Your task to perform on an android device: change alarm snooze length Image 0: 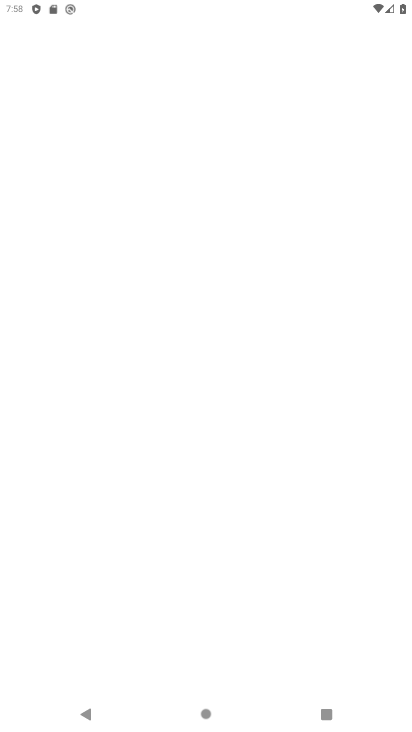
Step 0: click (140, 505)
Your task to perform on an android device: change alarm snooze length Image 1: 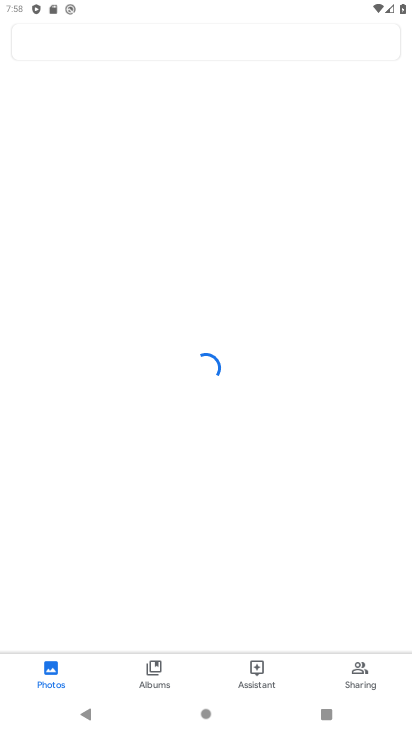
Step 1: press home button
Your task to perform on an android device: change alarm snooze length Image 2: 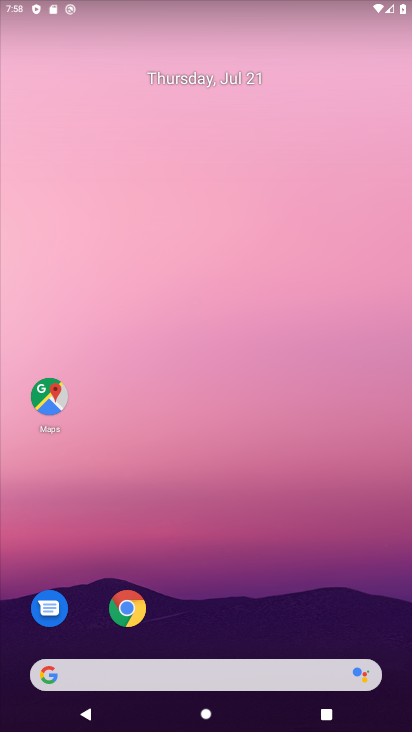
Step 2: drag from (51, 578) to (242, 1)
Your task to perform on an android device: change alarm snooze length Image 3: 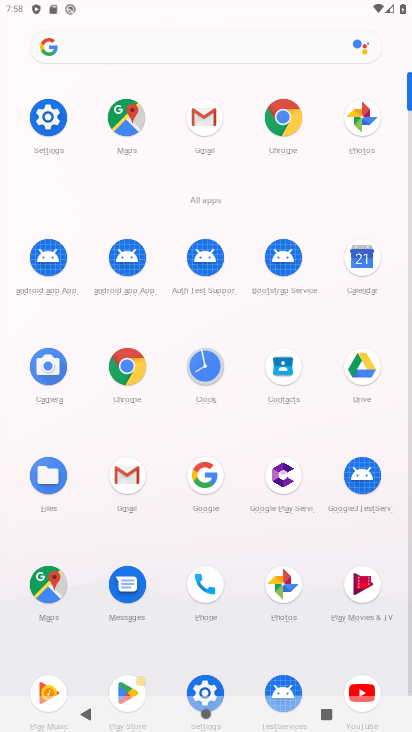
Step 3: click (208, 396)
Your task to perform on an android device: change alarm snooze length Image 4: 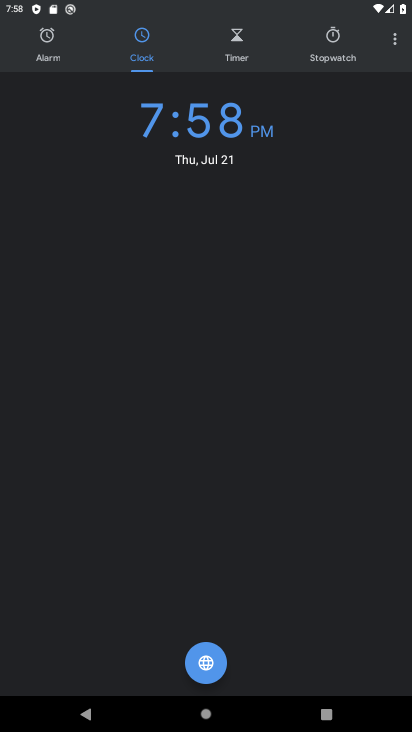
Step 4: click (45, 56)
Your task to perform on an android device: change alarm snooze length Image 5: 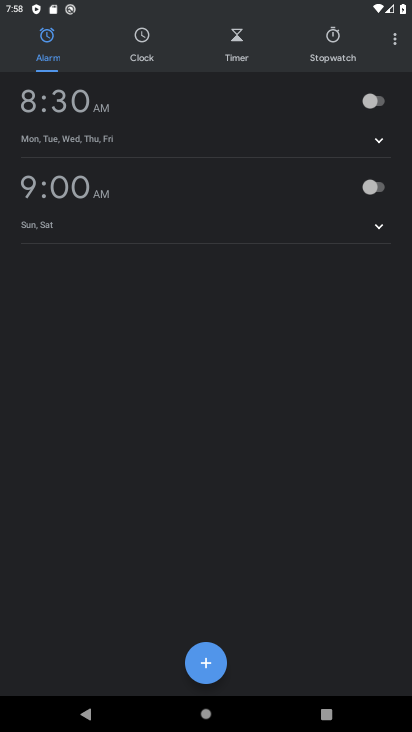
Step 5: click (388, 34)
Your task to perform on an android device: change alarm snooze length Image 6: 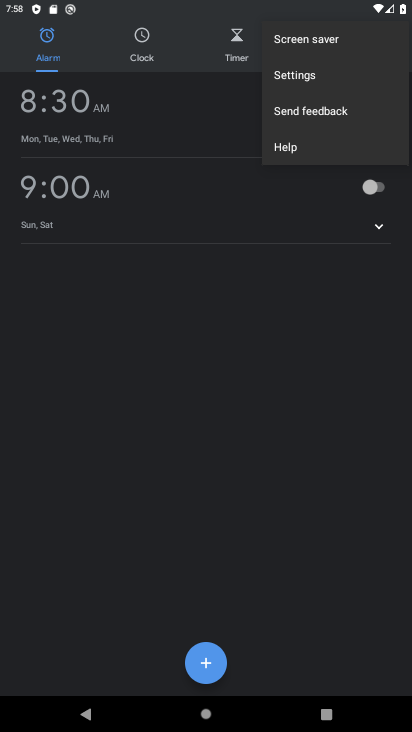
Step 6: click (312, 83)
Your task to perform on an android device: change alarm snooze length Image 7: 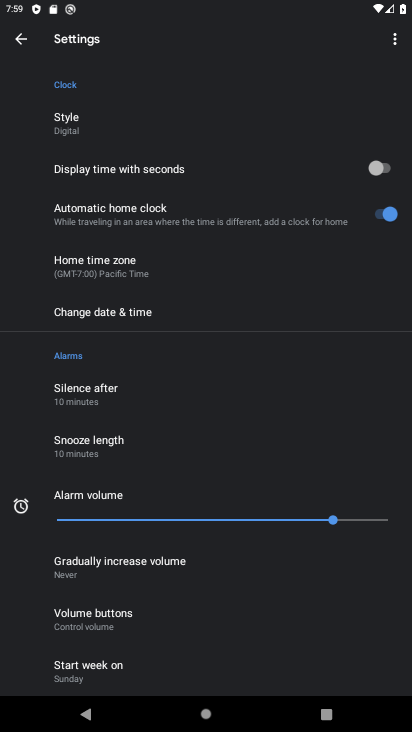
Step 7: click (117, 442)
Your task to perform on an android device: change alarm snooze length Image 8: 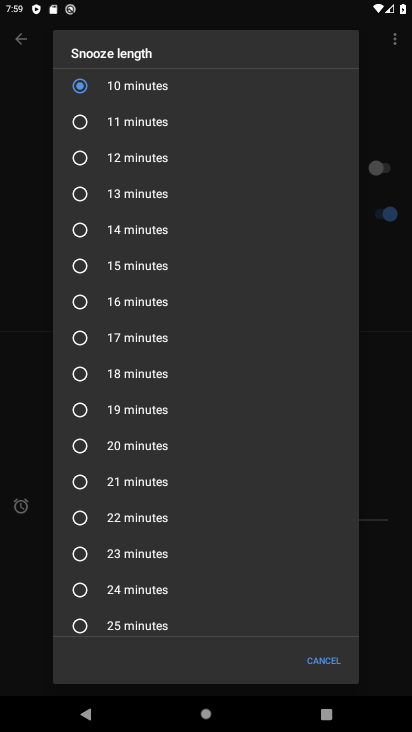
Step 8: click (74, 263)
Your task to perform on an android device: change alarm snooze length Image 9: 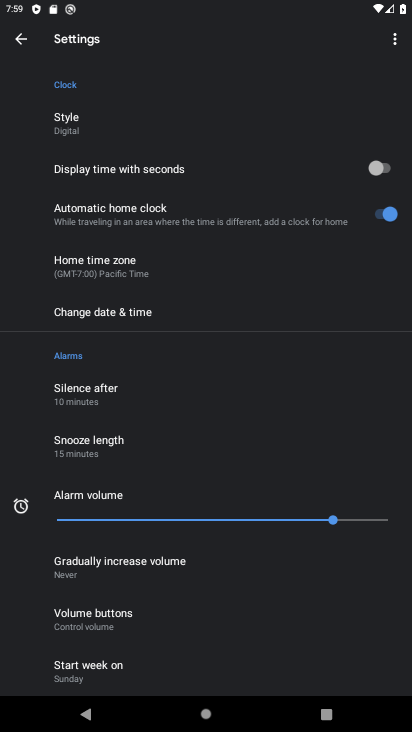
Step 9: task complete